Your task to perform on an android device: see tabs open on other devices in the chrome app Image 0: 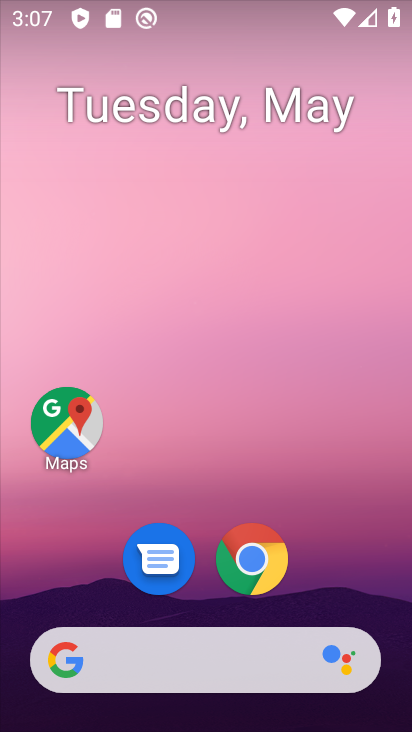
Step 0: click (254, 557)
Your task to perform on an android device: see tabs open on other devices in the chrome app Image 1: 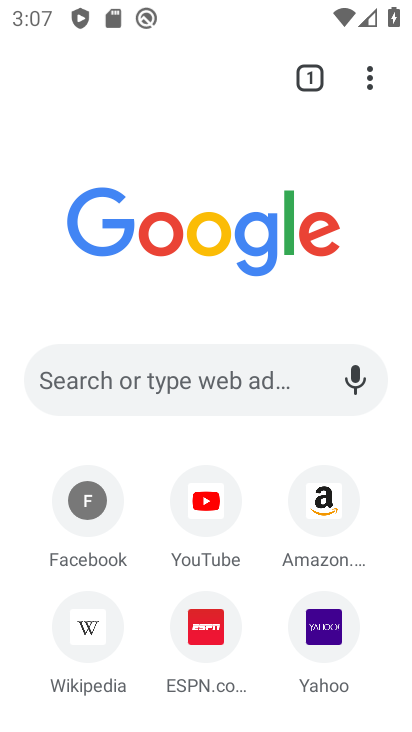
Step 1: click (369, 81)
Your task to perform on an android device: see tabs open on other devices in the chrome app Image 2: 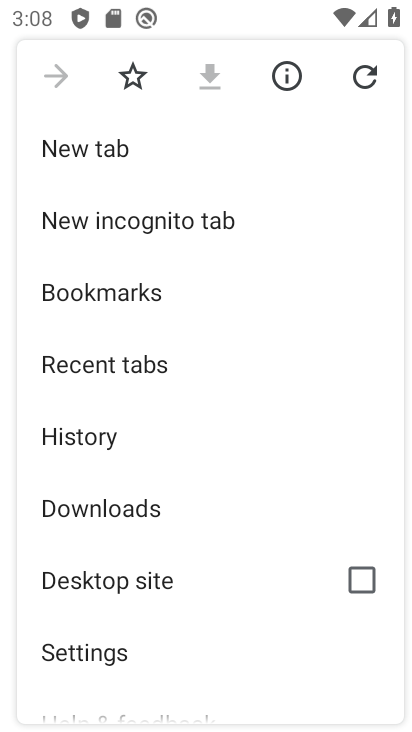
Step 2: click (130, 367)
Your task to perform on an android device: see tabs open on other devices in the chrome app Image 3: 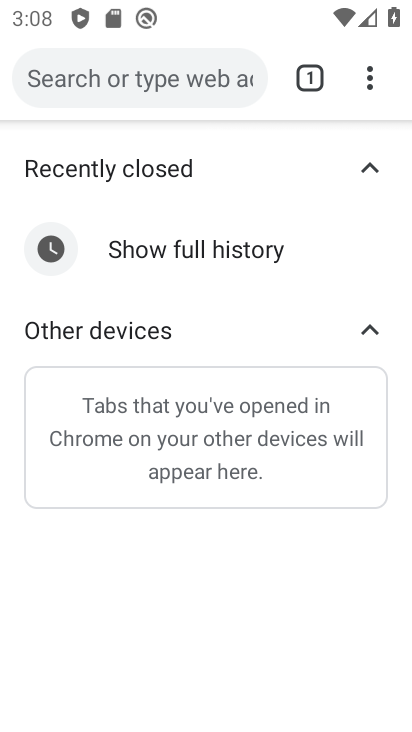
Step 3: task complete